Your task to perform on an android device: Go to internet settings Image 0: 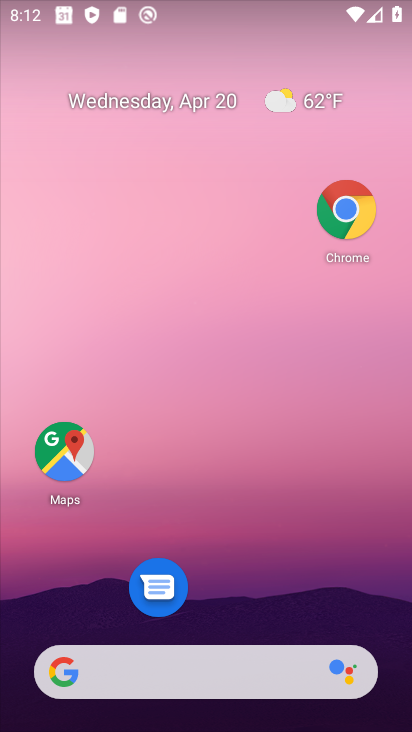
Step 0: drag from (234, 626) to (166, 79)
Your task to perform on an android device: Go to internet settings Image 1: 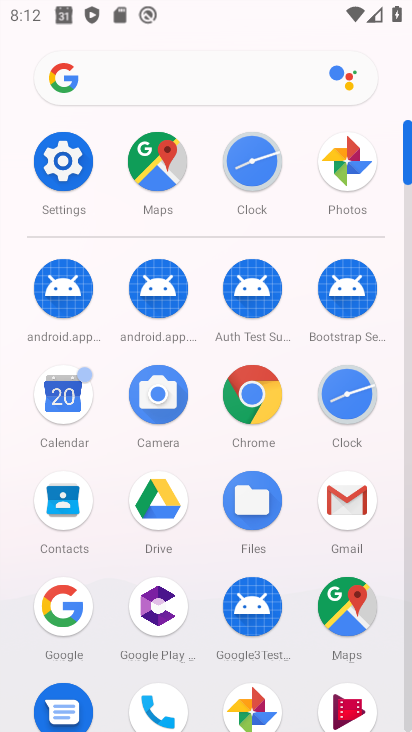
Step 1: click (60, 155)
Your task to perform on an android device: Go to internet settings Image 2: 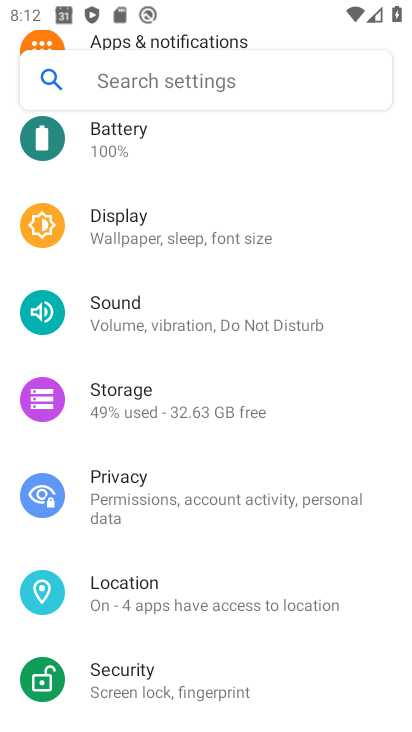
Step 2: drag from (172, 139) to (176, 669)
Your task to perform on an android device: Go to internet settings Image 3: 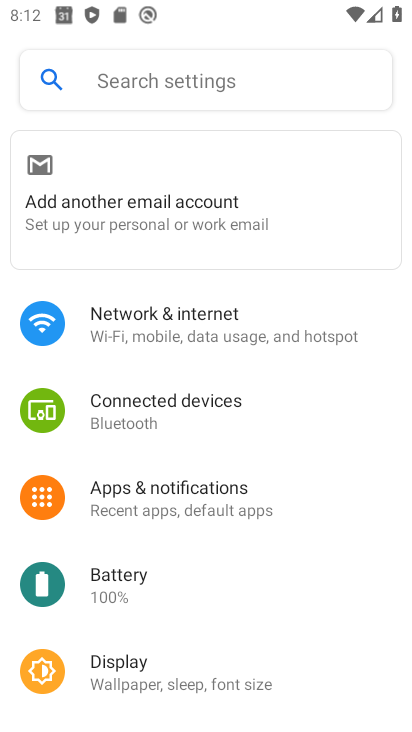
Step 3: click (248, 323)
Your task to perform on an android device: Go to internet settings Image 4: 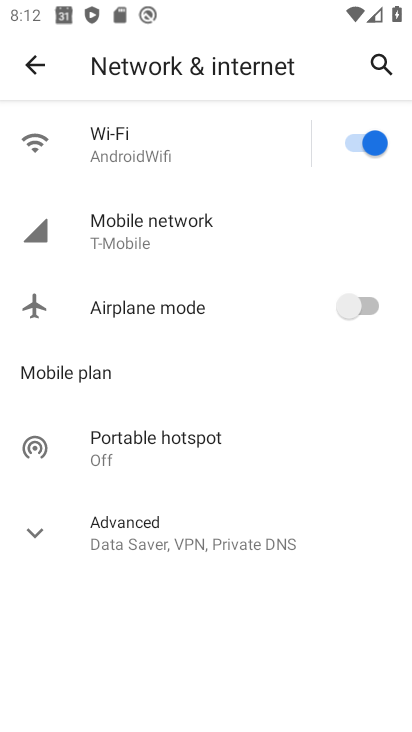
Step 4: click (213, 239)
Your task to perform on an android device: Go to internet settings Image 5: 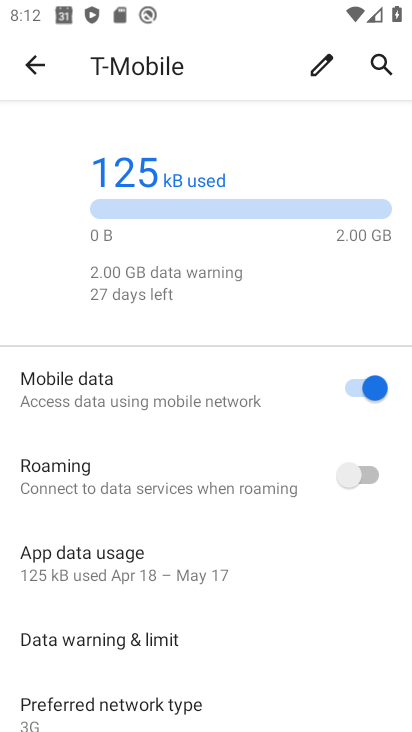
Step 5: task complete